Your task to perform on an android device: Google the capital of Mexico Image 0: 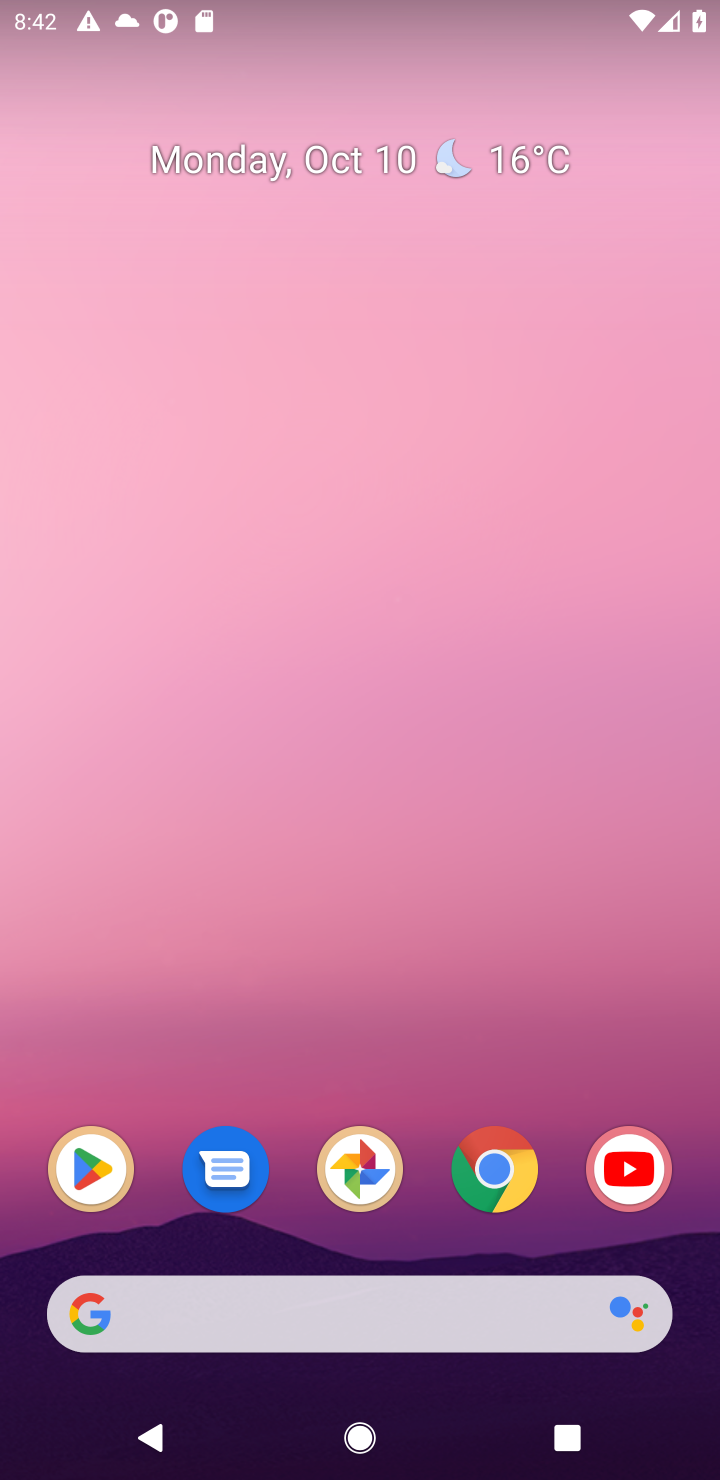
Step 0: click (479, 1170)
Your task to perform on an android device: Google the capital of Mexico Image 1: 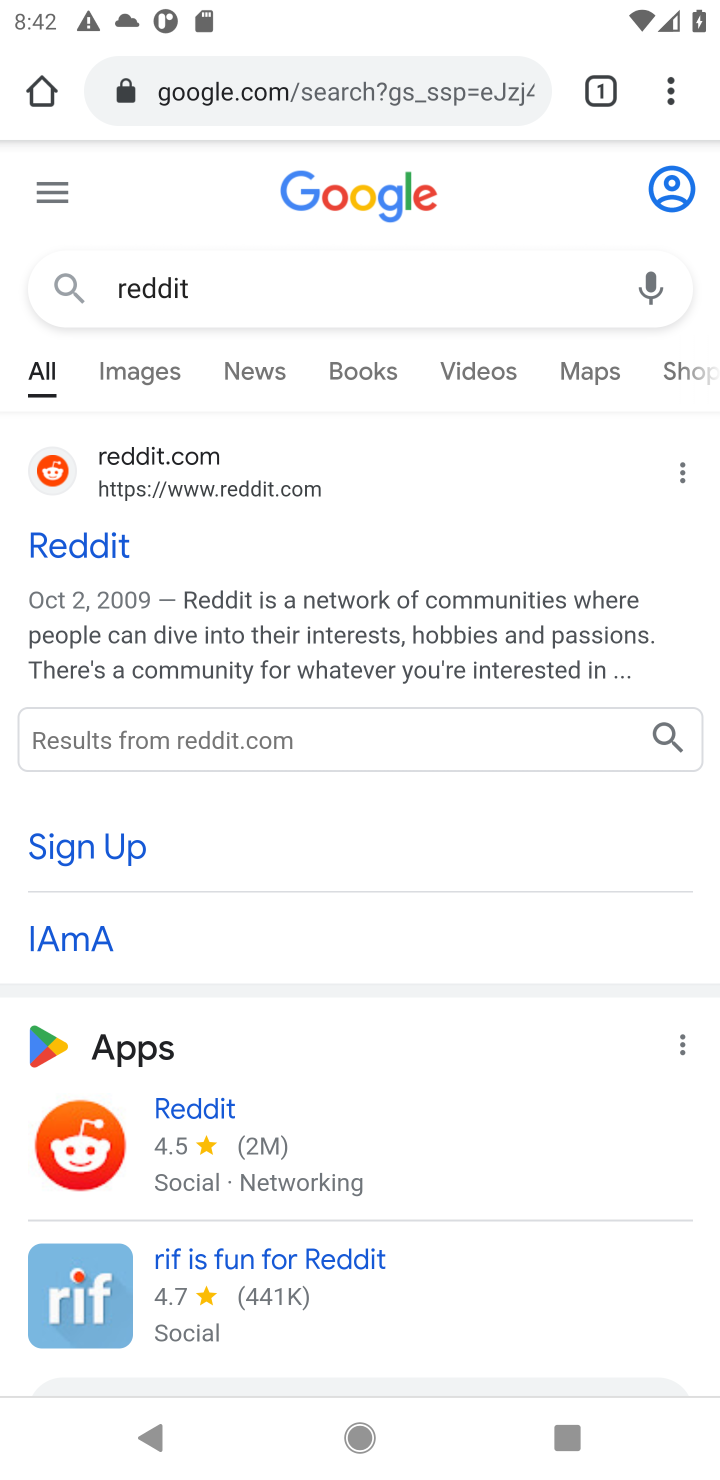
Step 1: click (508, 286)
Your task to perform on an android device: Google the capital of Mexico Image 2: 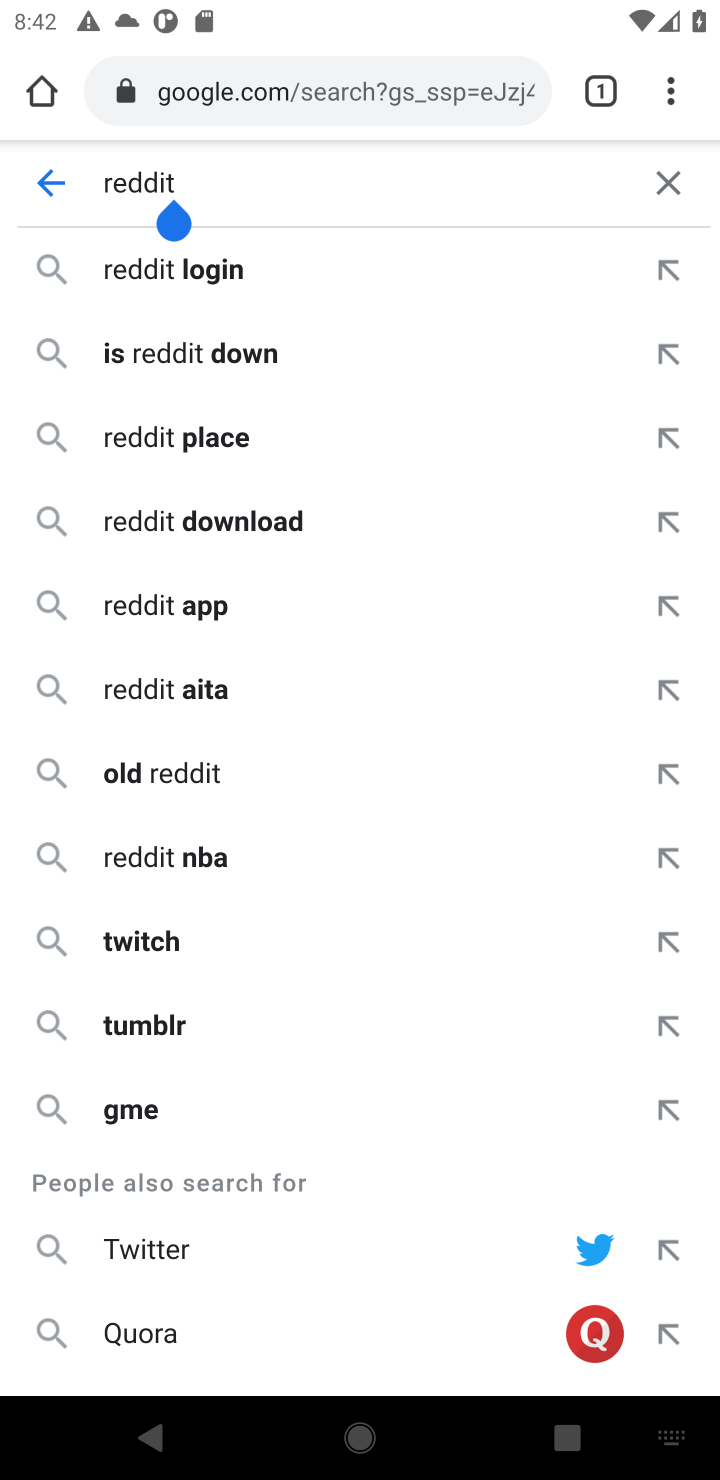
Step 2: click (674, 178)
Your task to perform on an android device: Google the capital of Mexico Image 3: 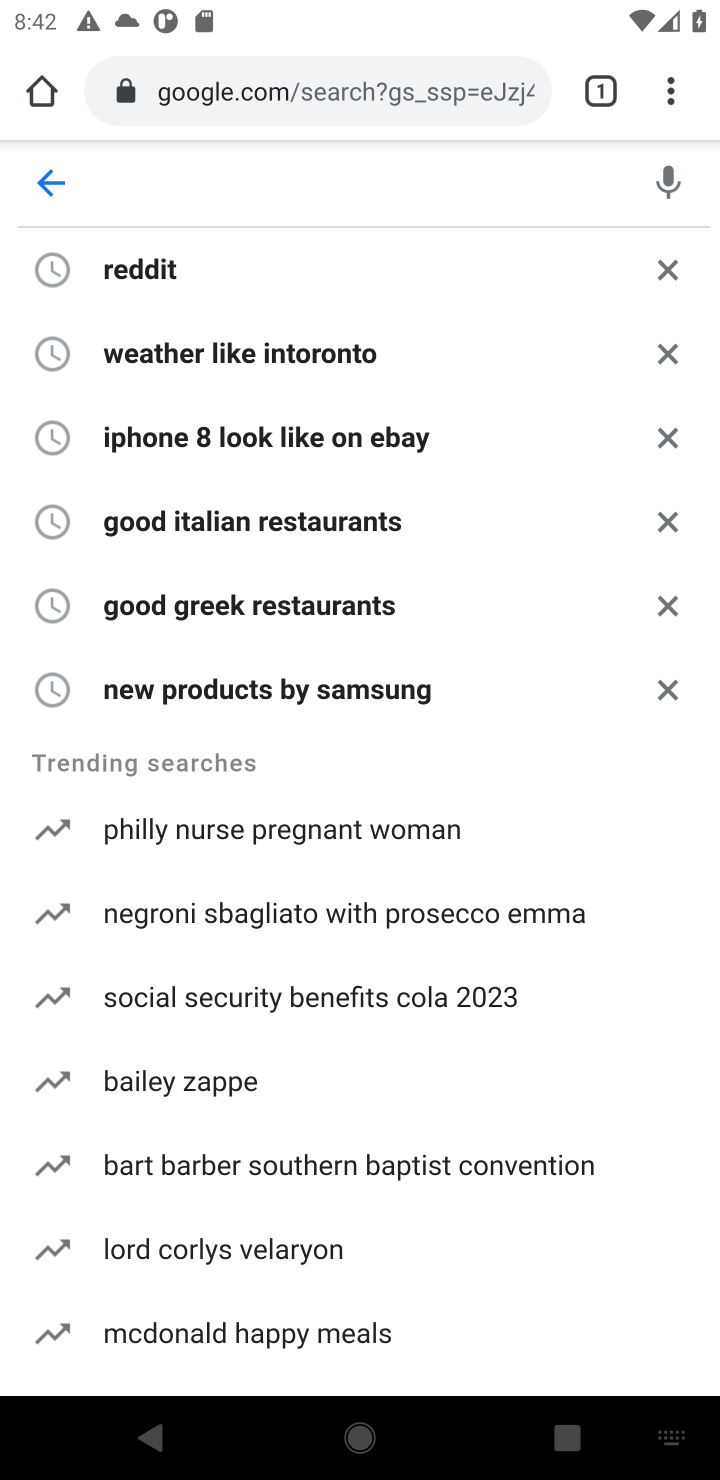
Step 3: type "capital of Mexico"
Your task to perform on an android device: Google the capital of Mexico Image 4: 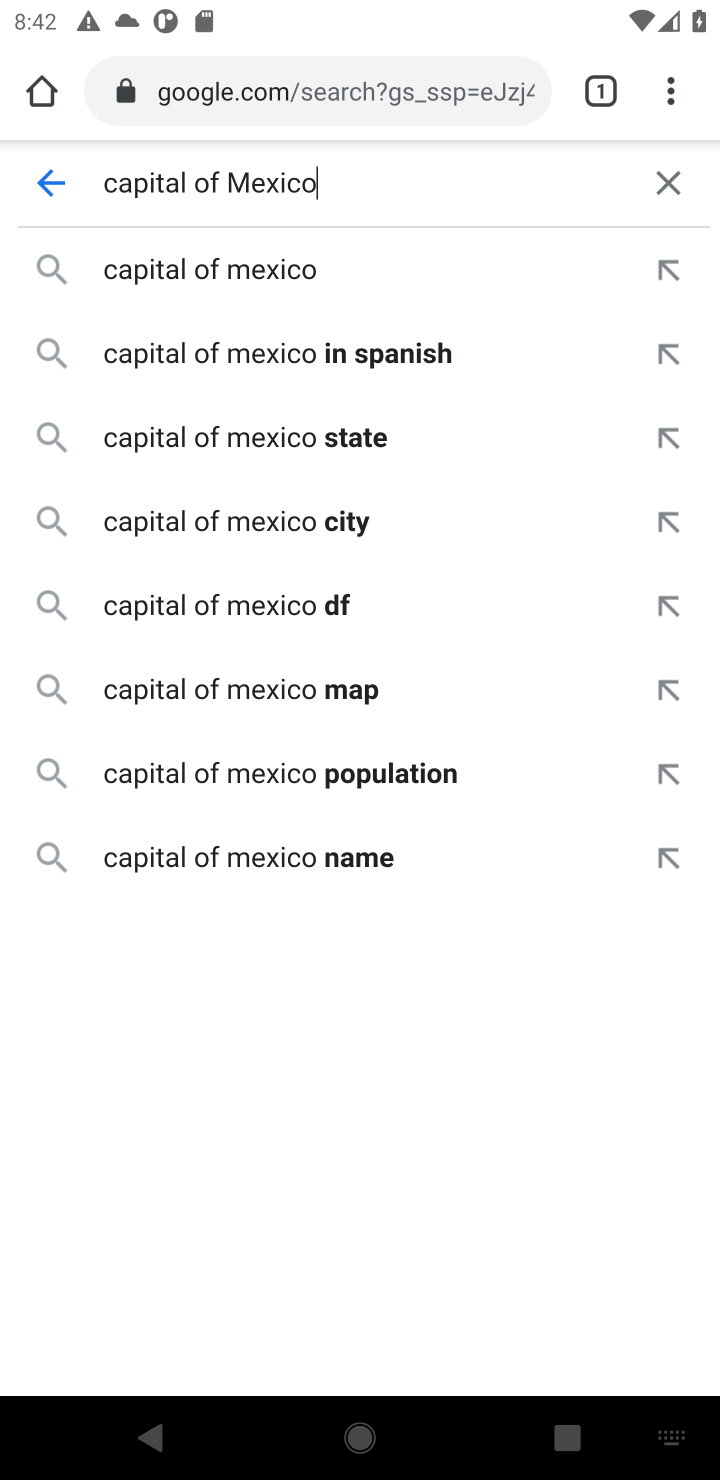
Step 4: click (250, 261)
Your task to perform on an android device: Google the capital of Mexico Image 5: 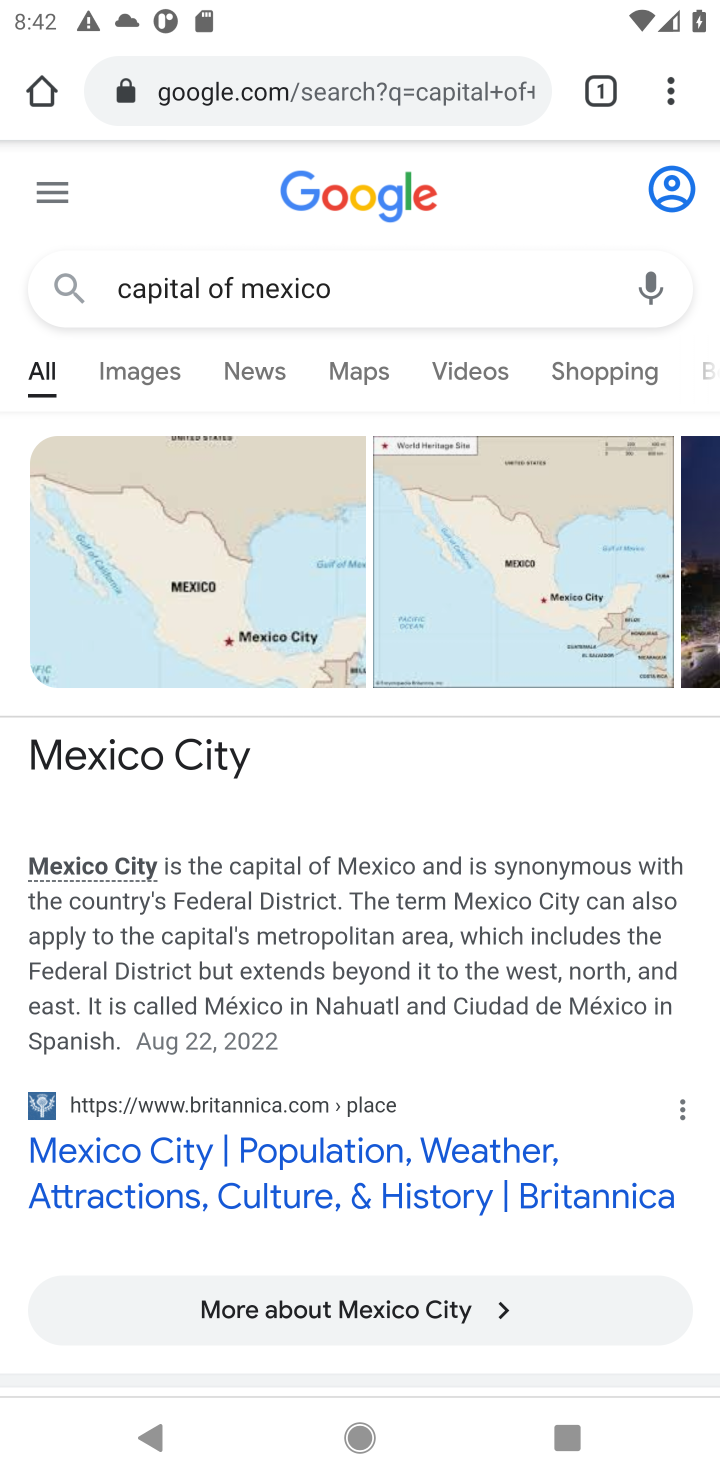
Step 5: task complete